Your task to perform on an android device: turn on wifi Image 0: 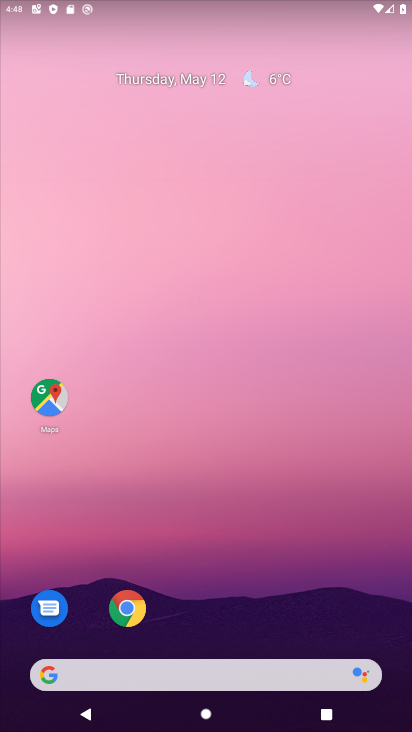
Step 0: drag from (230, 12) to (181, 521)
Your task to perform on an android device: turn on wifi Image 1: 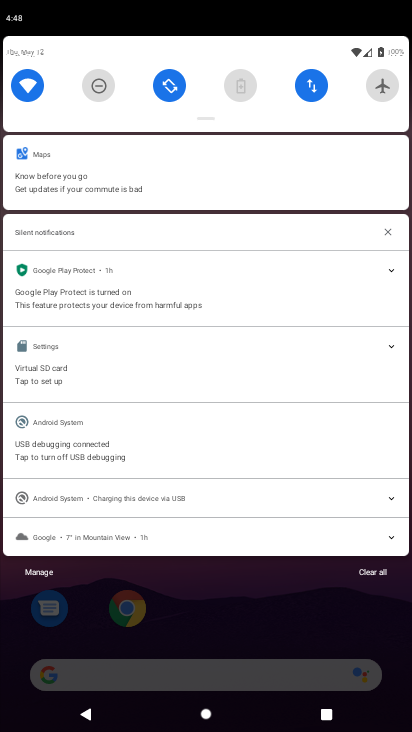
Step 1: task complete